Your task to perform on an android device: change text size in settings app Image 0: 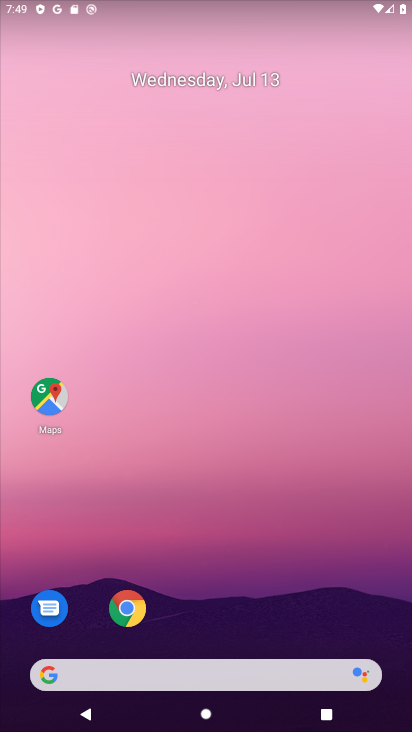
Step 0: drag from (250, 200) to (239, 130)
Your task to perform on an android device: change text size in settings app Image 1: 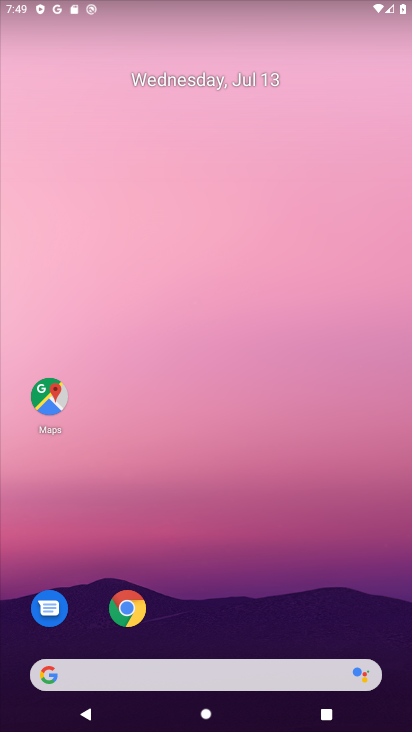
Step 1: drag from (246, 499) to (222, 149)
Your task to perform on an android device: change text size in settings app Image 2: 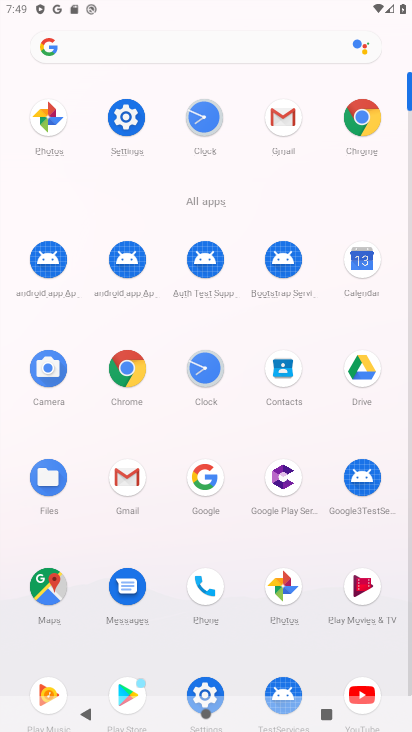
Step 2: click (126, 117)
Your task to perform on an android device: change text size in settings app Image 3: 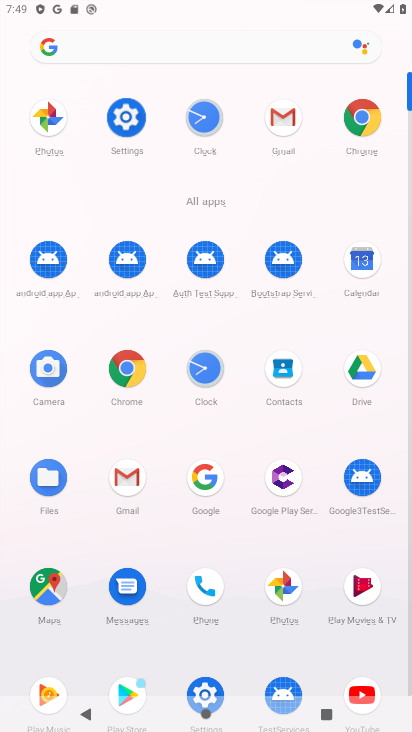
Step 3: click (126, 117)
Your task to perform on an android device: change text size in settings app Image 4: 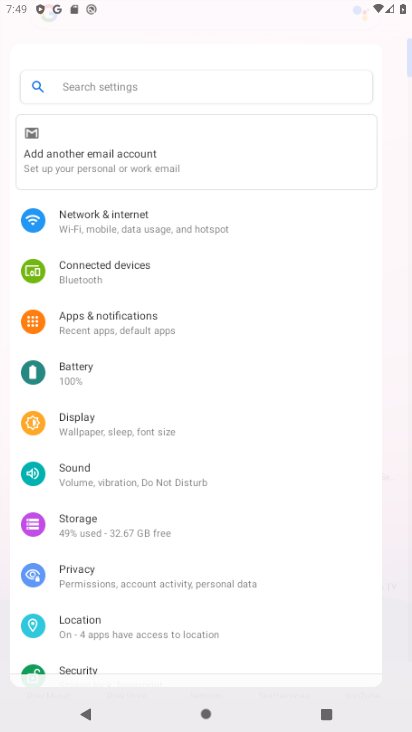
Step 4: click (128, 118)
Your task to perform on an android device: change text size in settings app Image 5: 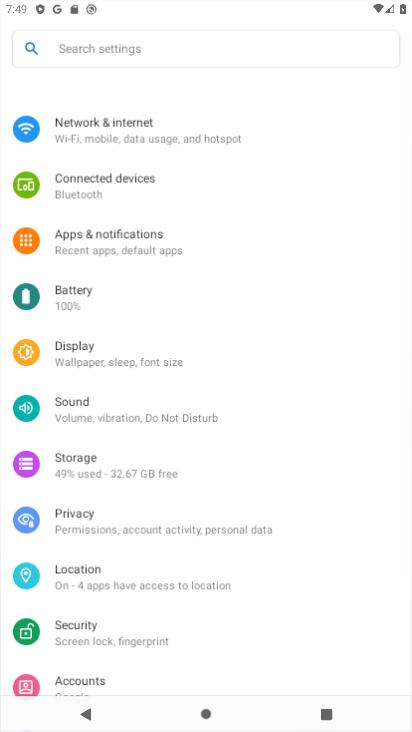
Step 5: click (128, 118)
Your task to perform on an android device: change text size in settings app Image 6: 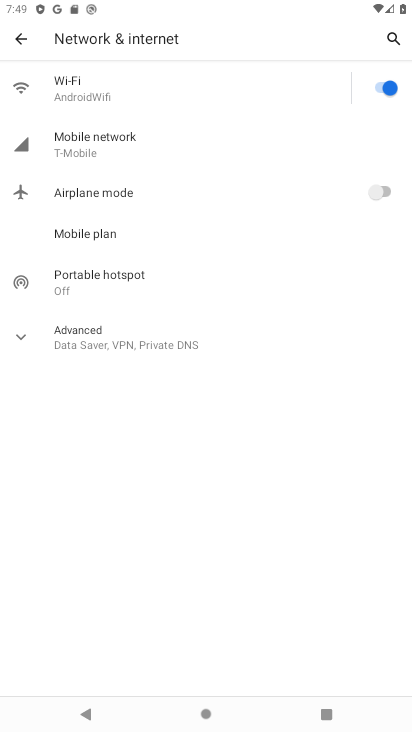
Step 6: click (25, 35)
Your task to perform on an android device: change text size in settings app Image 7: 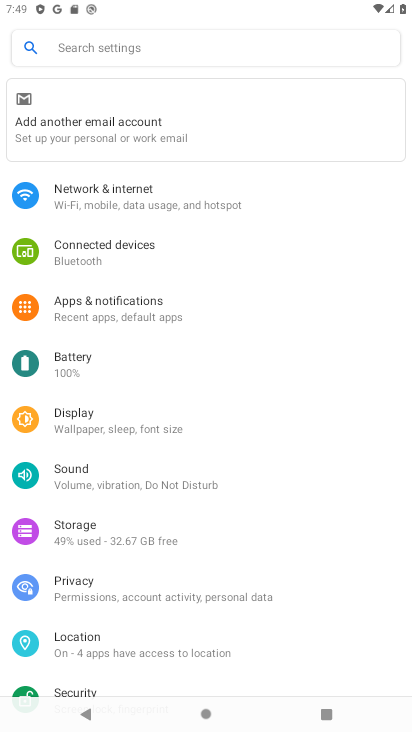
Step 7: click (109, 431)
Your task to perform on an android device: change text size in settings app Image 8: 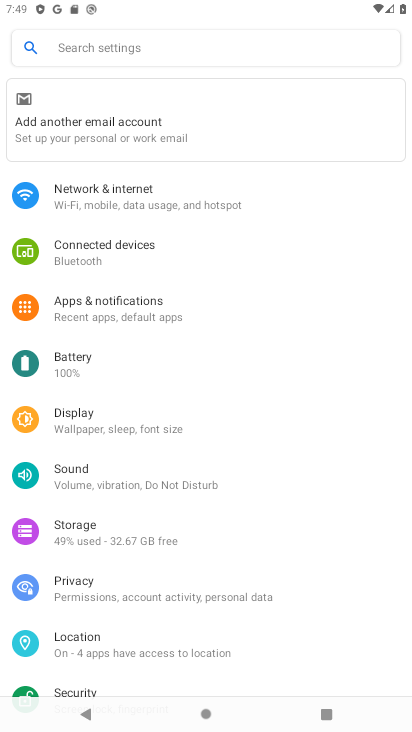
Step 8: click (111, 432)
Your task to perform on an android device: change text size in settings app Image 9: 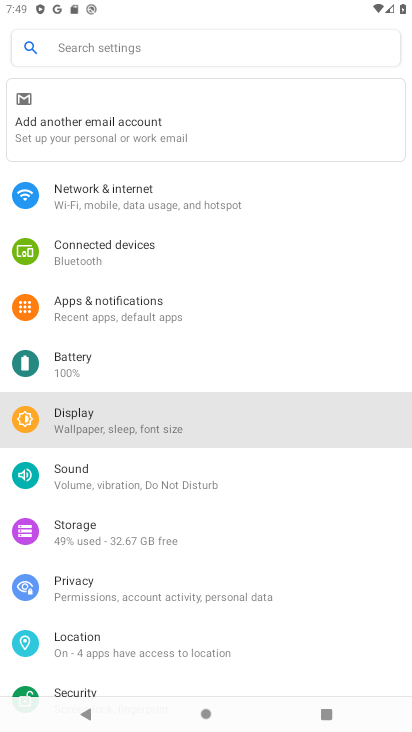
Step 9: click (112, 432)
Your task to perform on an android device: change text size in settings app Image 10: 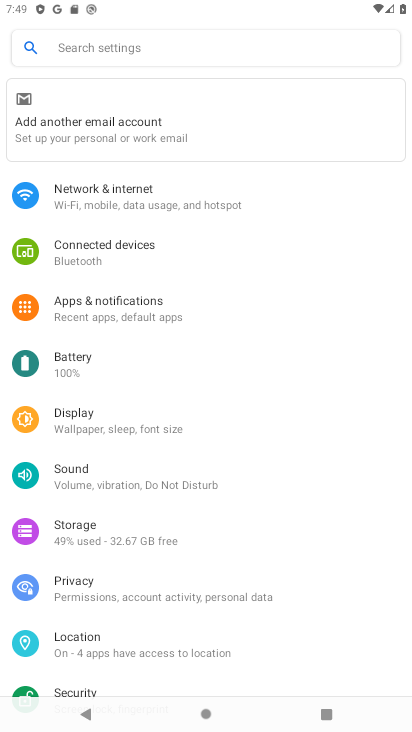
Step 10: click (116, 432)
Your task to perform on an android device: change text size in settings app Image 11: 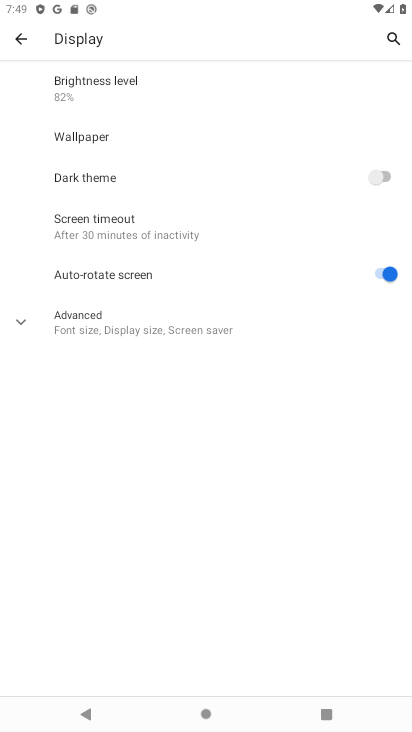
Step 11: click (86, 324)
Your task to perform on an android device: change text size in settings app Image 12: 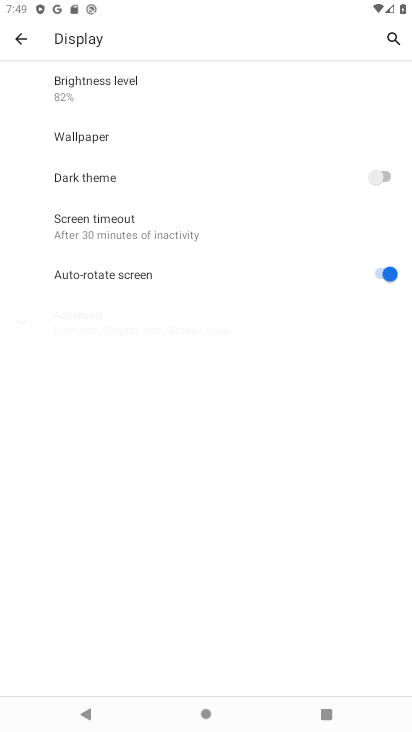
Step 12: click (80, 320)
Your task to perform on an android device: change text size in settings app Image 13: 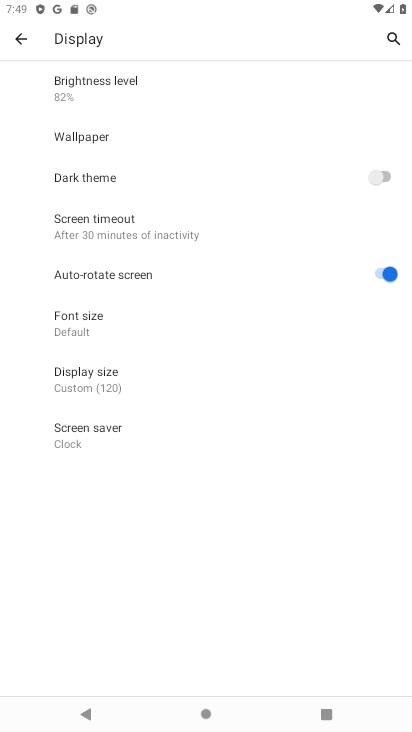
Step 13: click (80, 320)
Your task to perform on an android device: change text size in settings app Image 14: 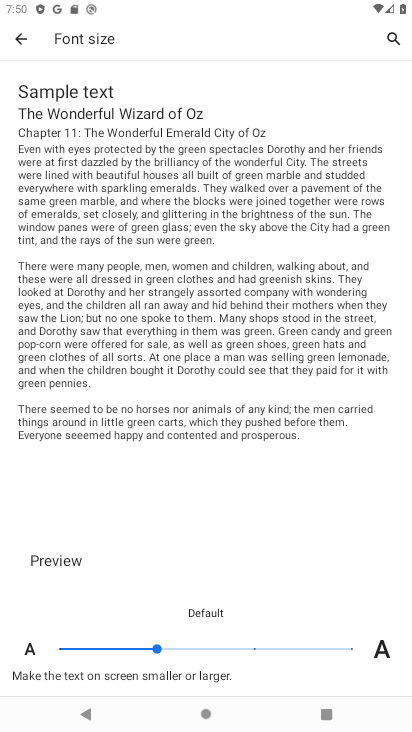
Step 14: click (249, 645)
Your task to perform on an android device: change text size in settings app Image 15: 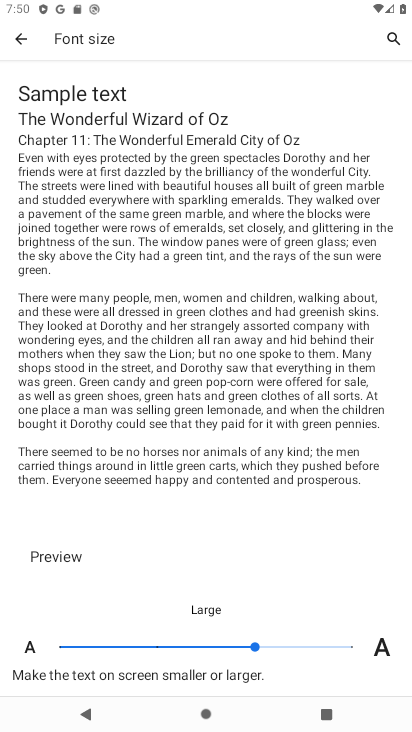
Step 15: task complete